Your task to perform on an android device: install app "Google Calendar" Image 0: 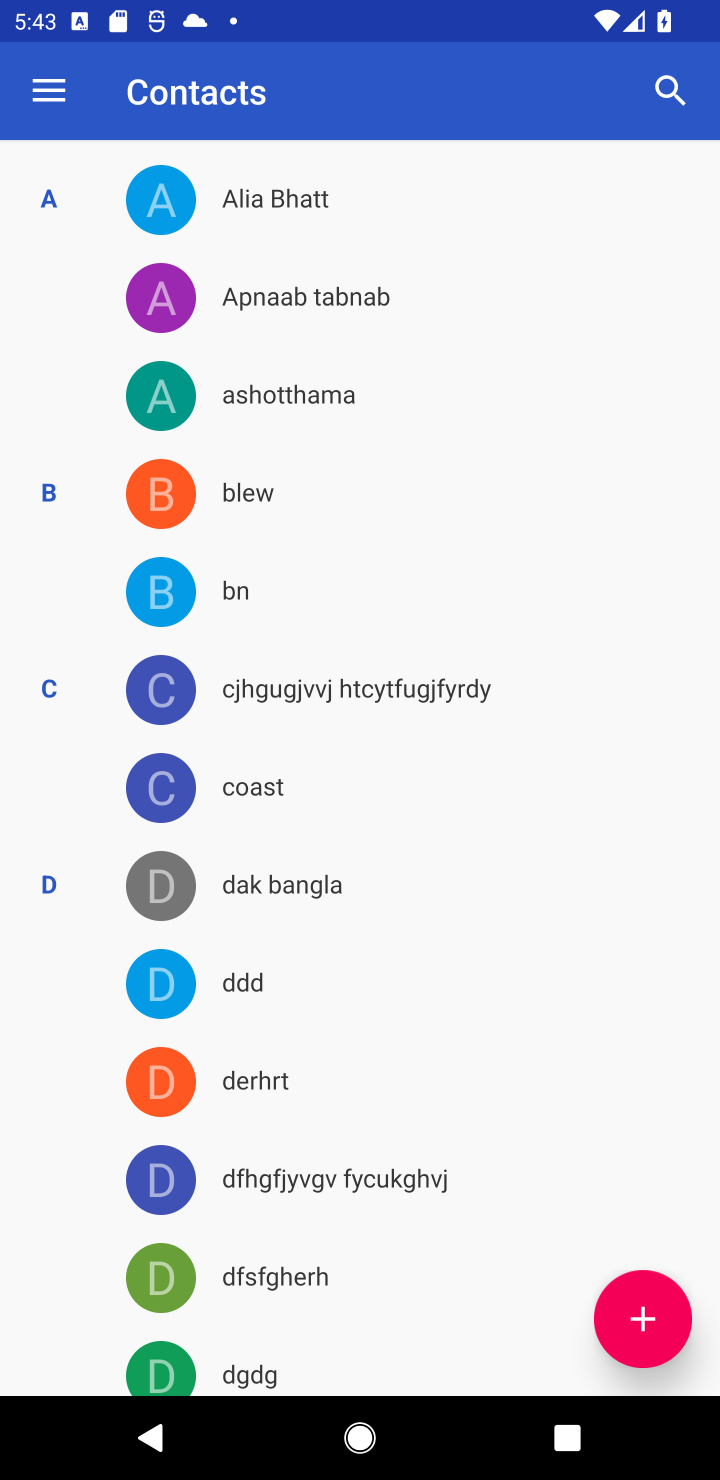
Step 0: press home button
Your task to perform on an android device: install app "Google Calendar" Image 1: 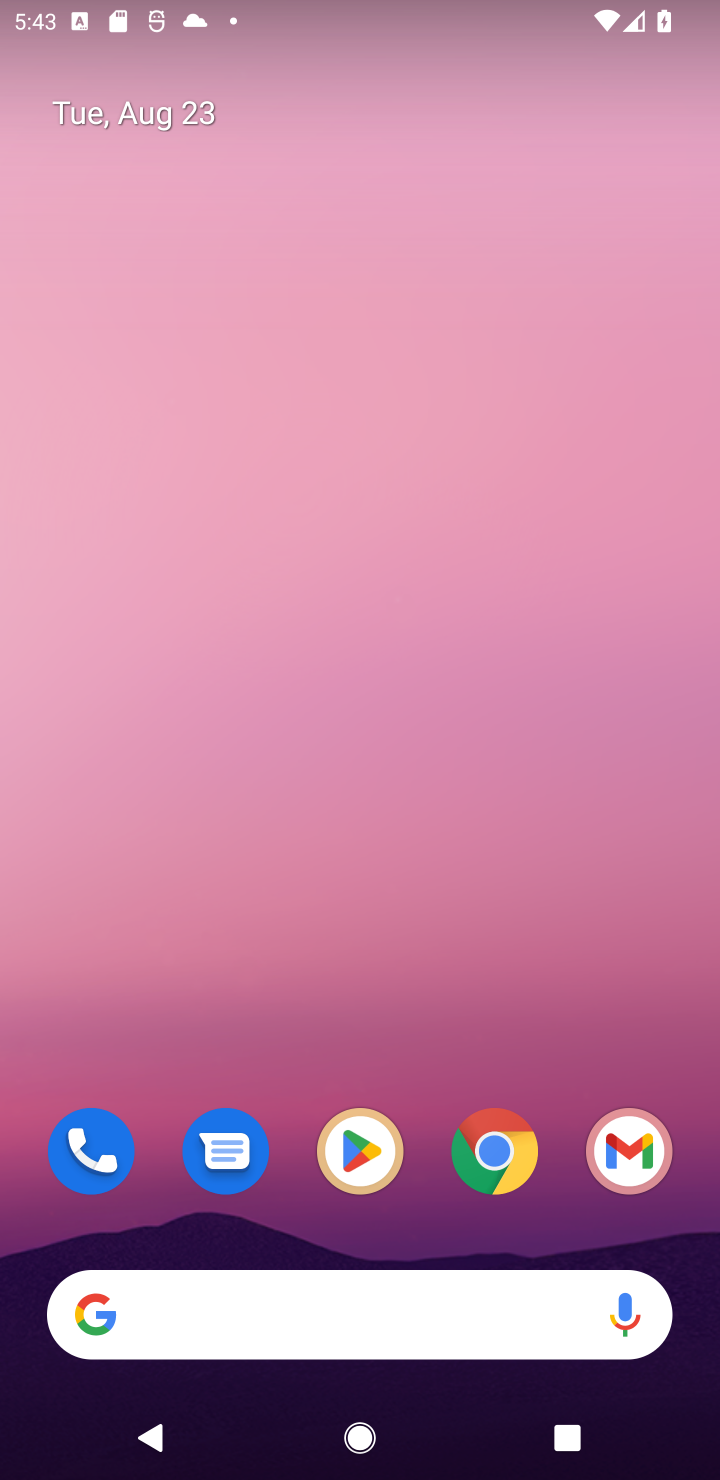
Step 1: click (345, 1155)
Your task to perform on an android device: install app "Google Calendar" Image 2: 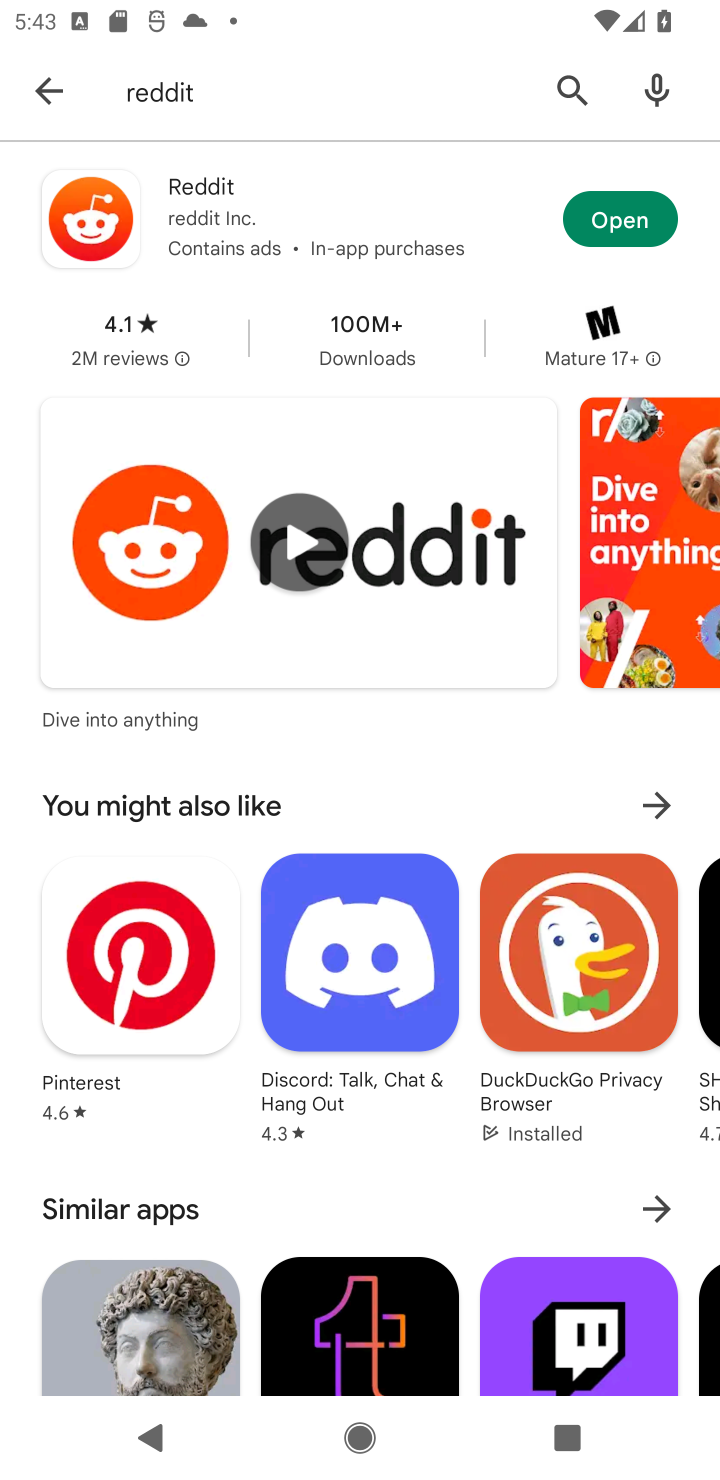
Step 2: click (560, 93)
Your task to perform on an android device: install app "Google Calendar" Image 3: 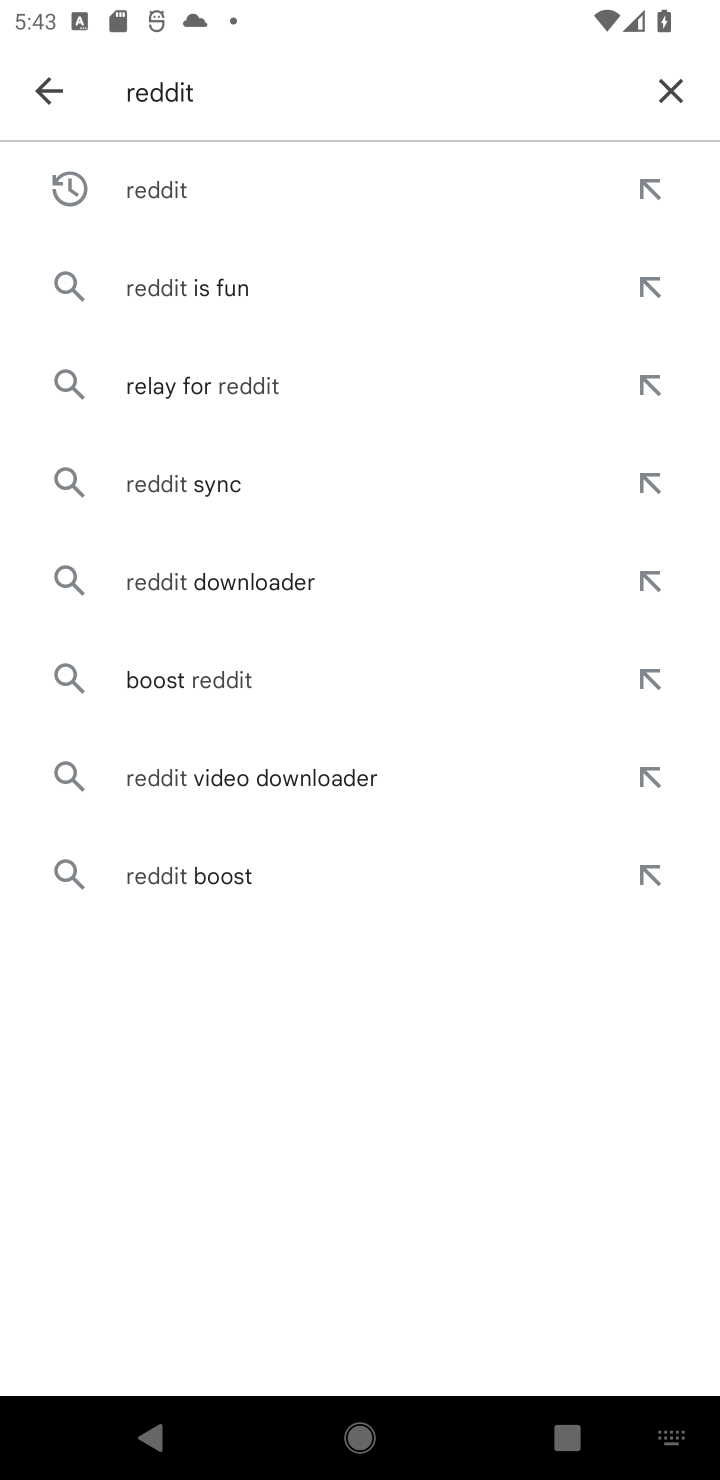
Step 3: click (670, 97)
Your task to perform on an android device: install app "Google Calendar" Image 4: 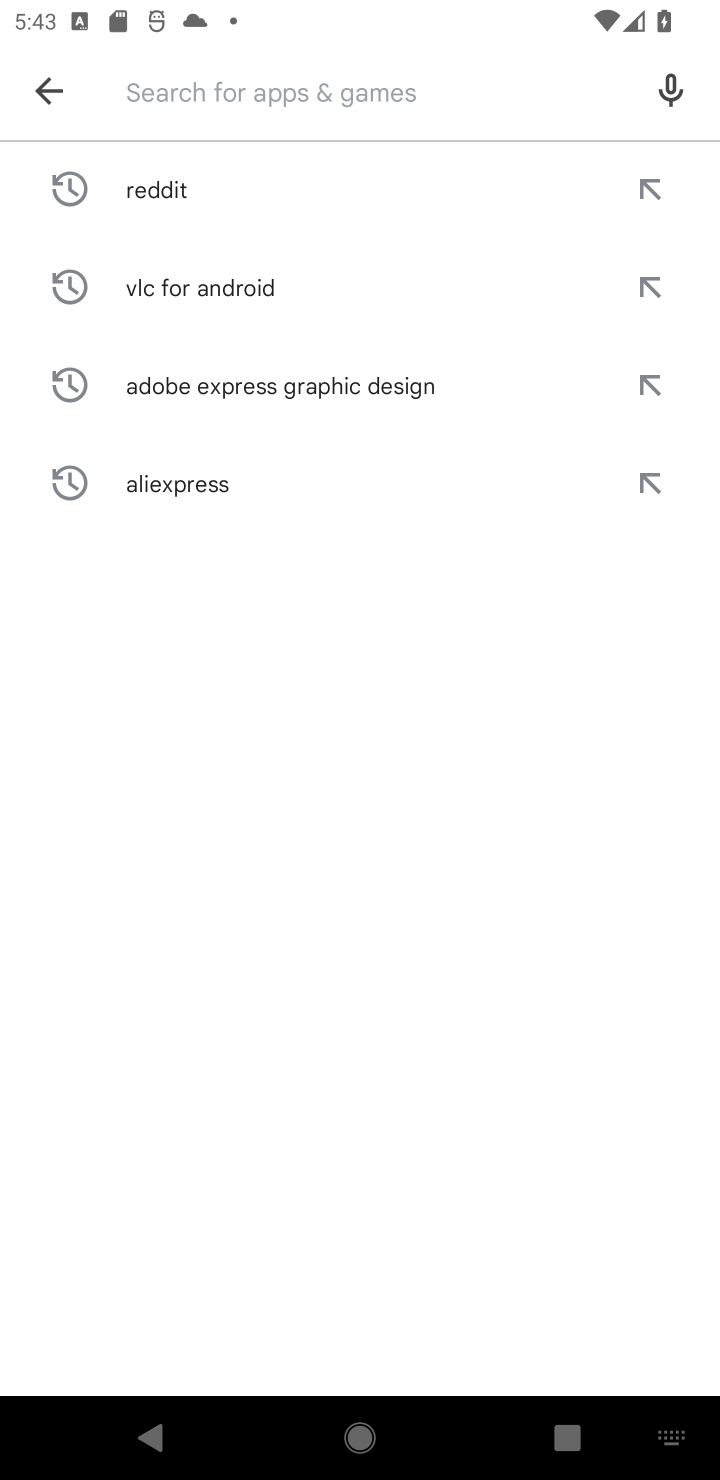
Step 4: type "Google Calendar"
Your task to perform on an android device: install app "Google Calendar" Image 5: 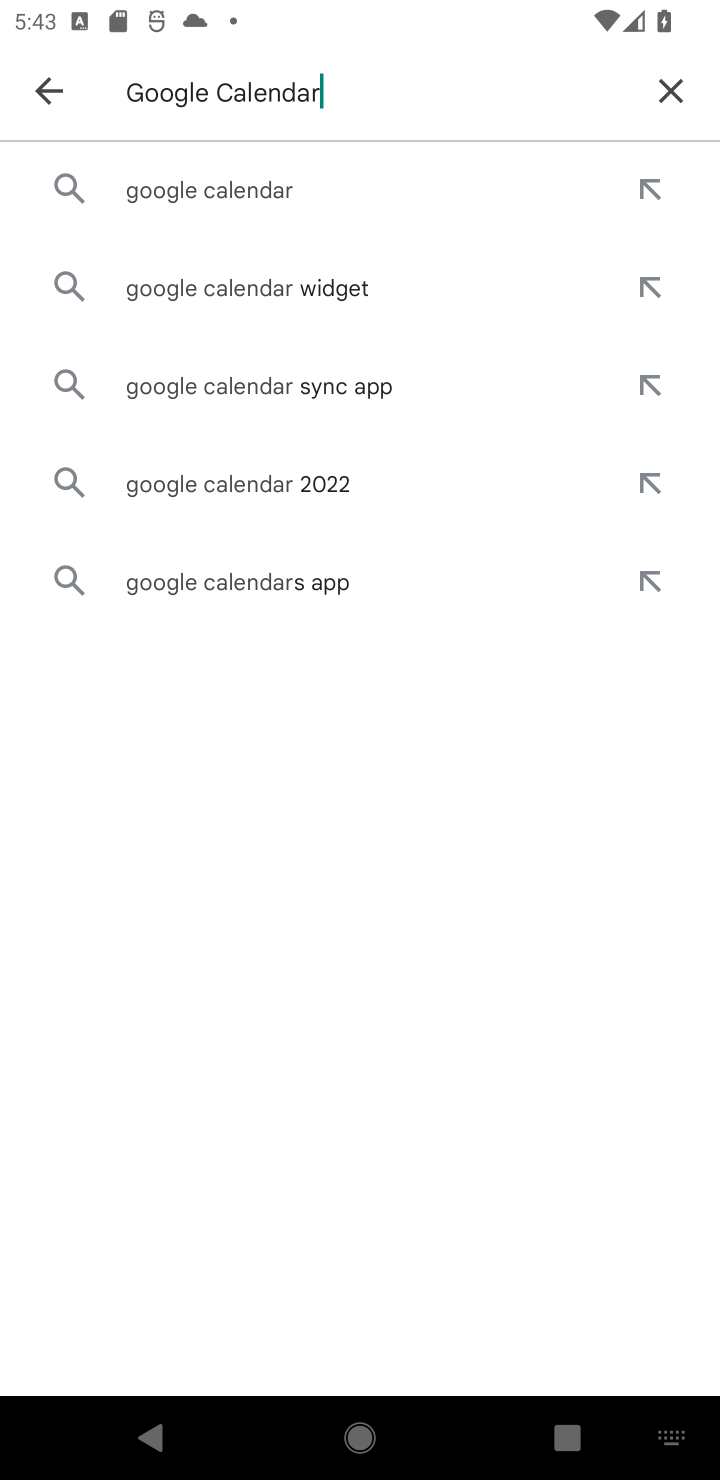
Step 5: click (249, 181)
Your task to perform on an android device: install app "Google Calendar" Image 6: 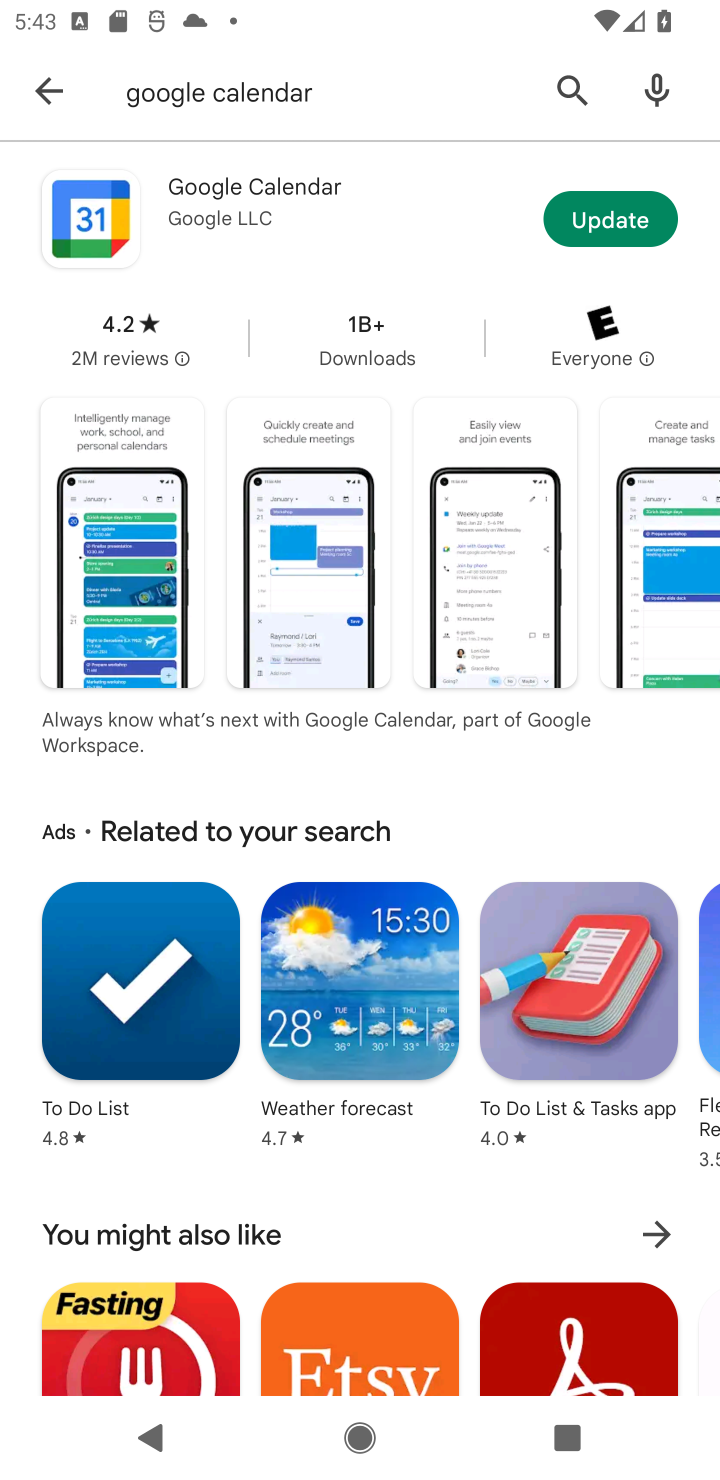
Step 6: click (212, 185)
Your task to perform on an android device: install app "Google Calendar" Image 7: 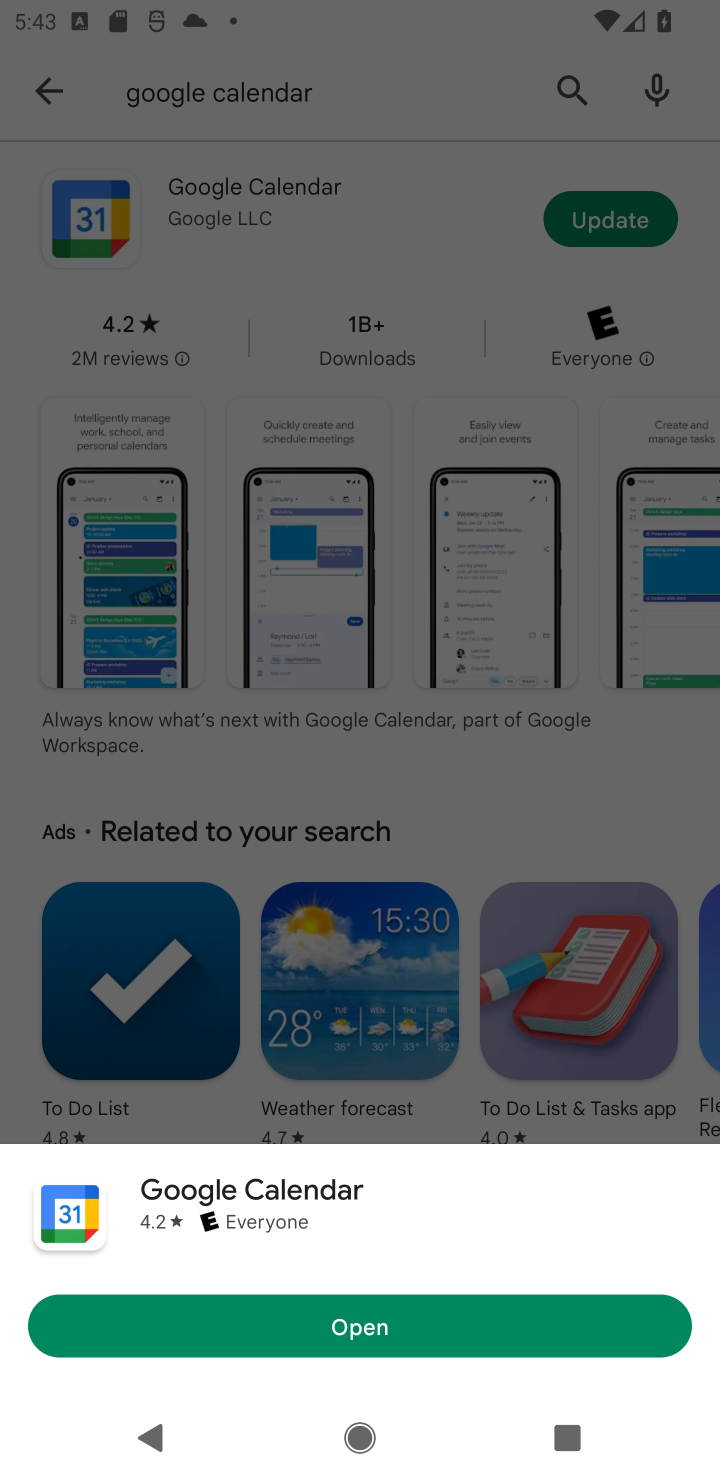
Step 7: click (352, 1323)
Your task to perform on an android device: install app "Google Calendar" Image 8: 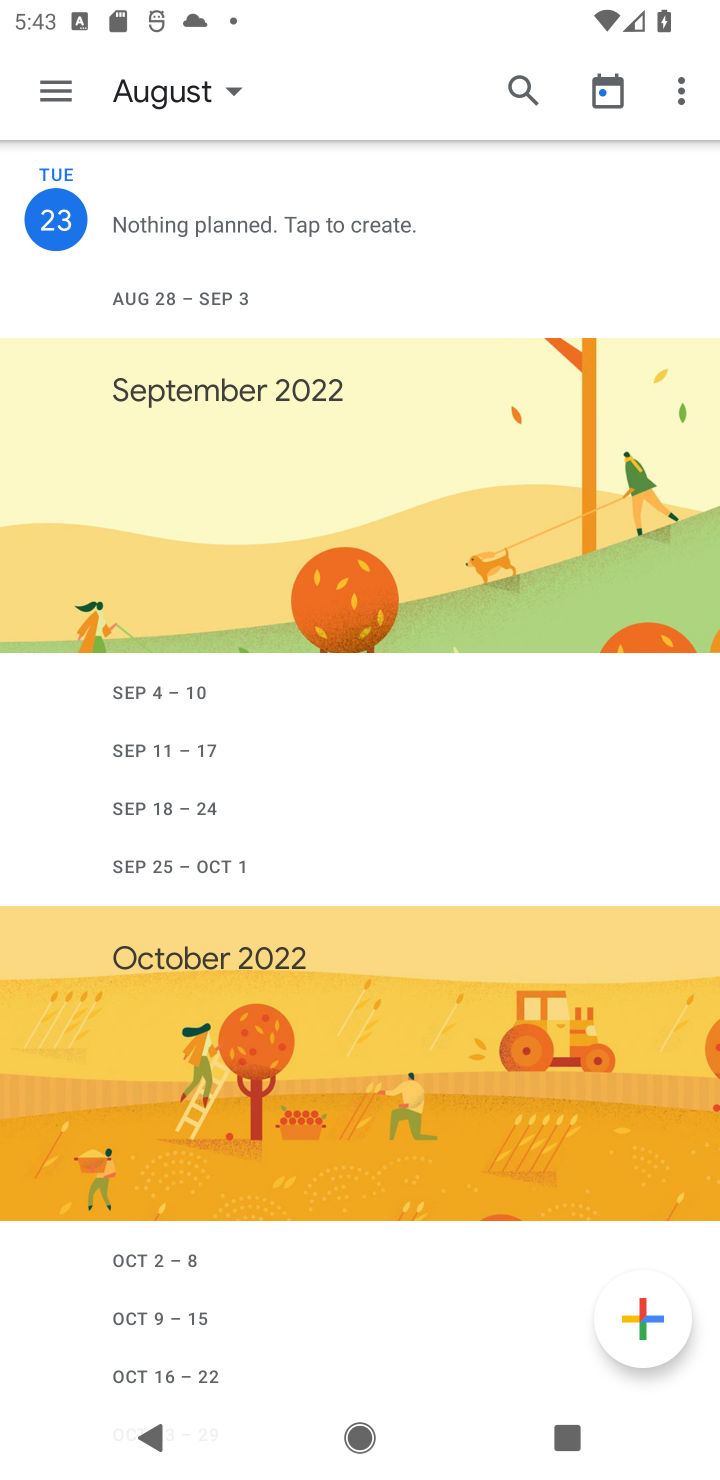
Step 8: task complete